Your task to perform on an android device: Open internet settings Image 0: 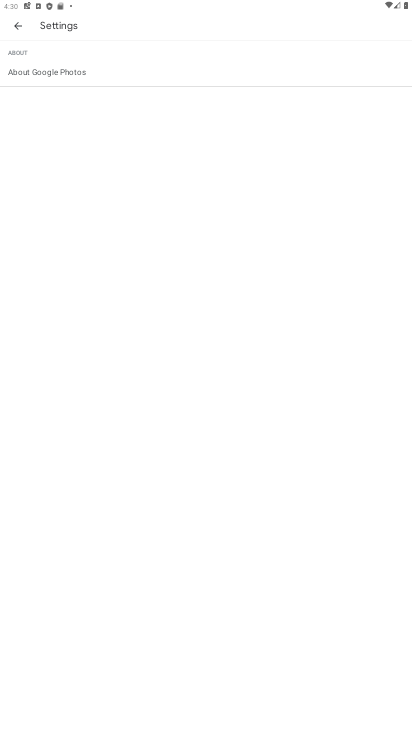
Step 0: press home button
Your task to perform on an android device: Open internet settings Image 1: 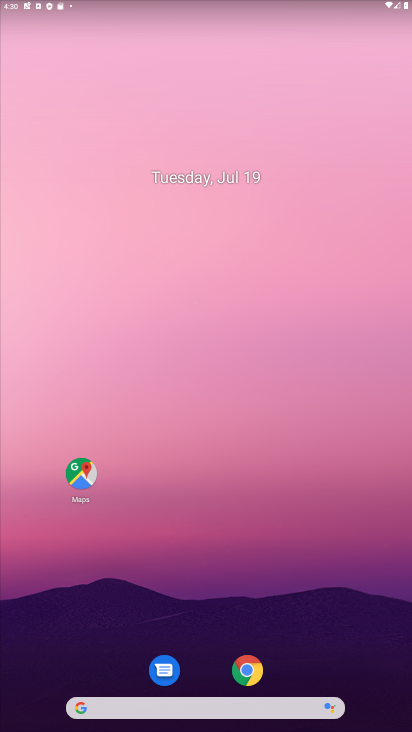
Step 1: drag from (296, 693) to (326, 6)
Your task to perform on an android device: Open internet settings Image 2: 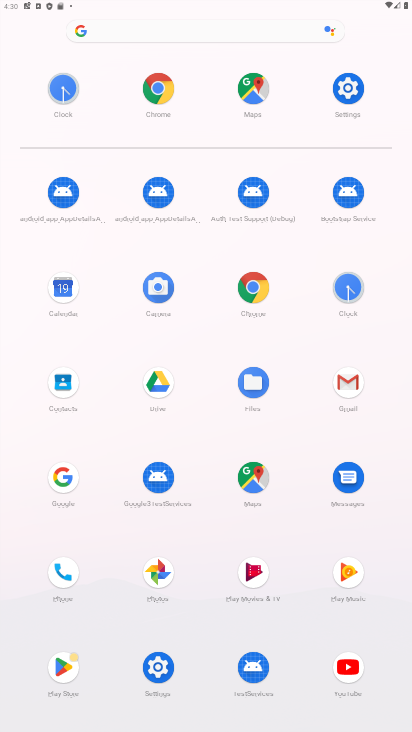
Step 2: click (353, 89)
Your task to perform on an android device: Open internet settings Image 3: 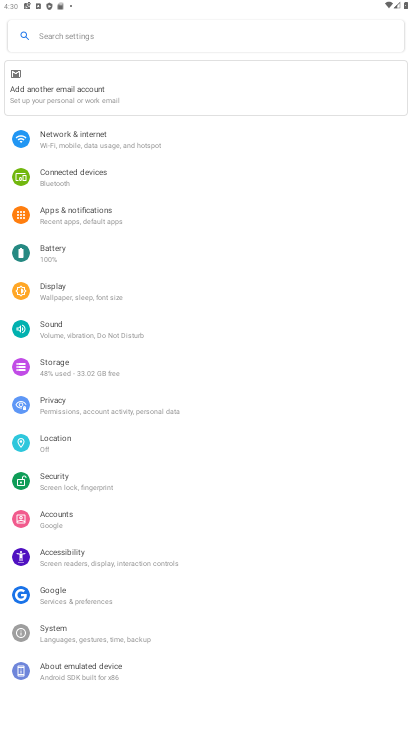
Step 3: click (161, 146)
Your task to perform on an android device: Open internet settings Image 4: 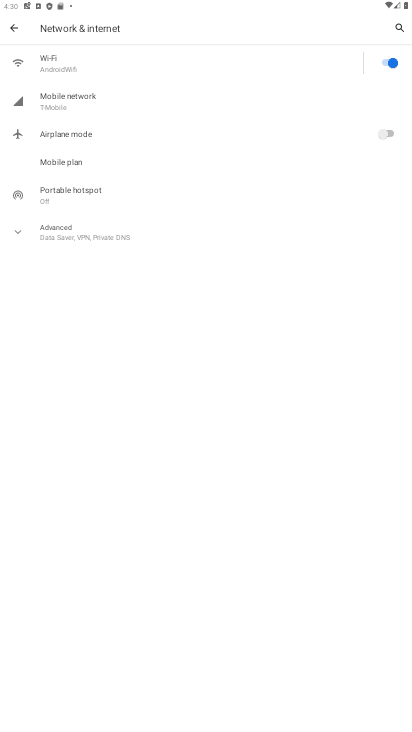
Step 4: task complete